Your task to perform on an android device: turn off improve location accuracy Image 0: 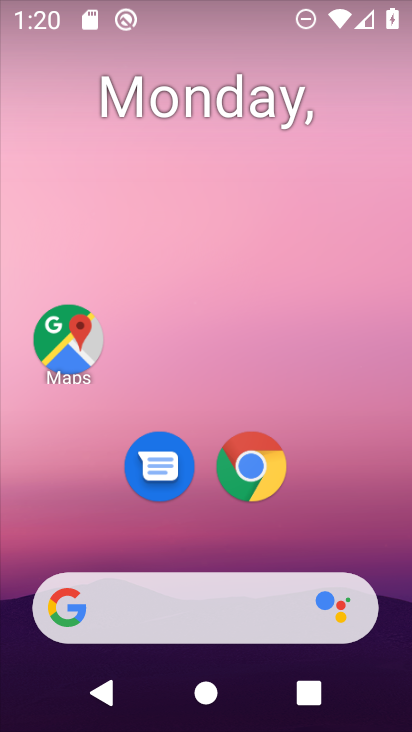
Step 0: drag from (206, 552) to (246, 30)
Your task to perform on an android device: turn off improve location accuracy Image 1: 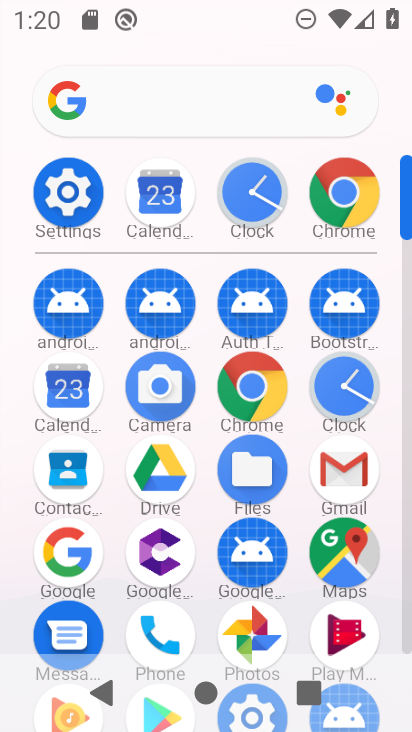
Step 1: click (69, 214)
Your task to perform on an android device: turn off improve location accuracy Image 2: 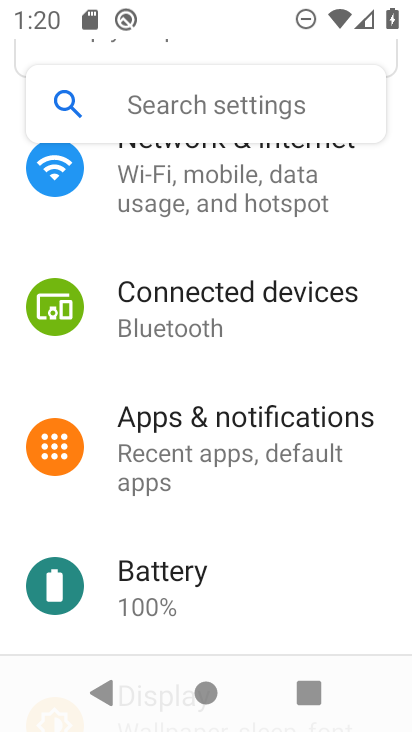
Step 2: drag from (243, 548) to (271, 209)
Your task to perform on an android device: turn off improve location accuracy Image 3: 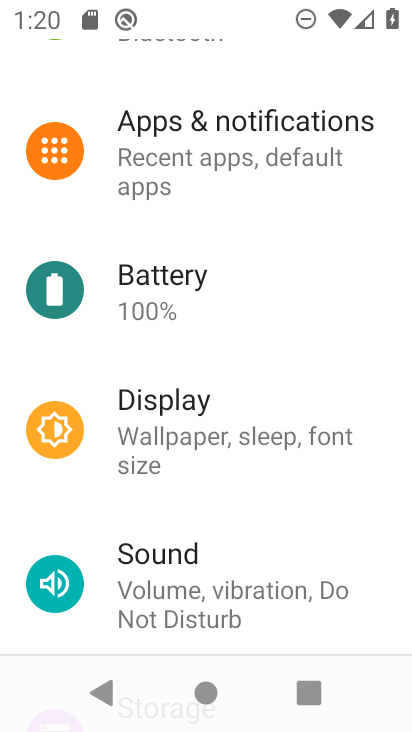
Step 3: drag from (233, 547) to (314, 2)
Your task to perform on an android device: turn off improve location accuracy Image 4: 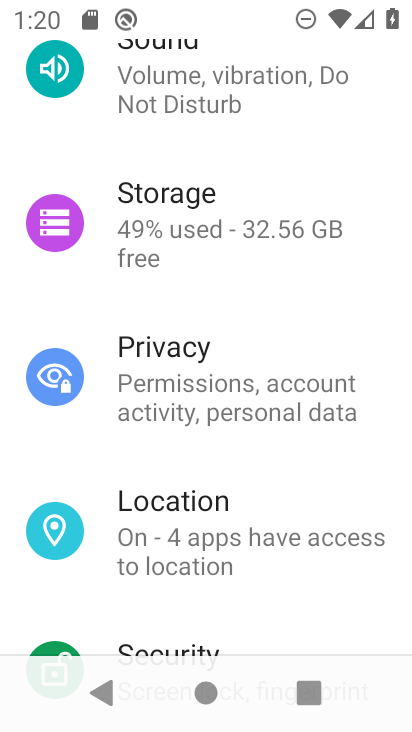
Step 4: click (206, 517)
Your task to perform on an android device: turn off improve location accuracy Image 5: 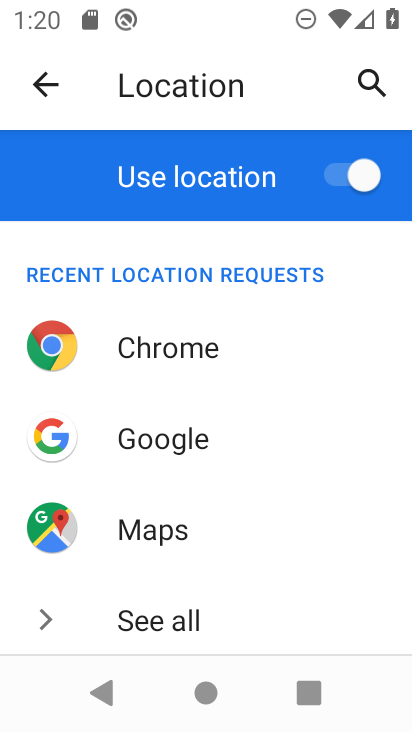
Step 5: drag from (245, 548) to (257, 225)
Your task to perform on an android device: turn off improve location accuracy Image 6: 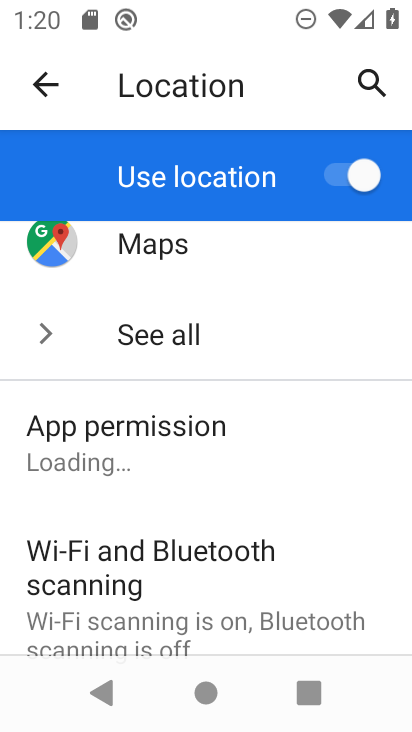
Step 6: drag from (141, 591) to (178, 307)
Your task to perform on an android device: turn off improve location accuracy Image 7: 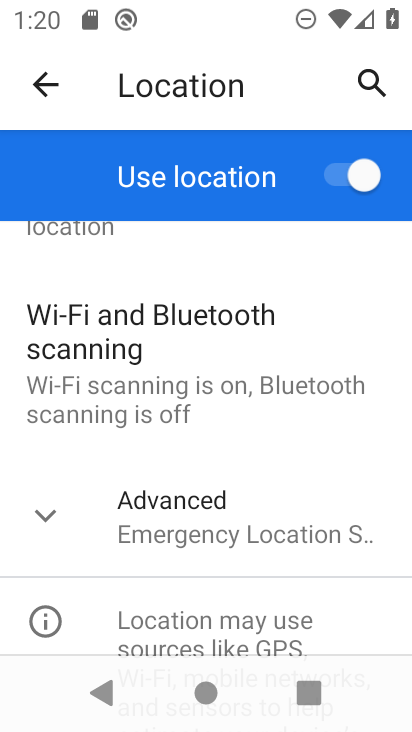
Step 7: click (179, 514)
Your task to perform on an android device: turn off improve location accuracy Image 8: 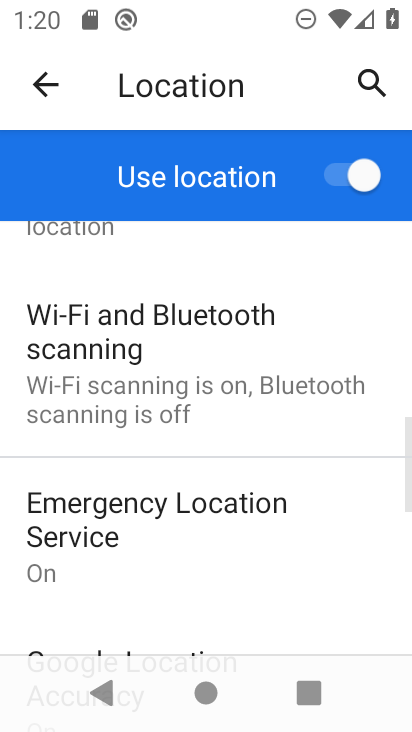
Step 8: drag from (188, 544) to (230, 222)
Your task to perform on an android device: turn off improve location accuracy Image 9: 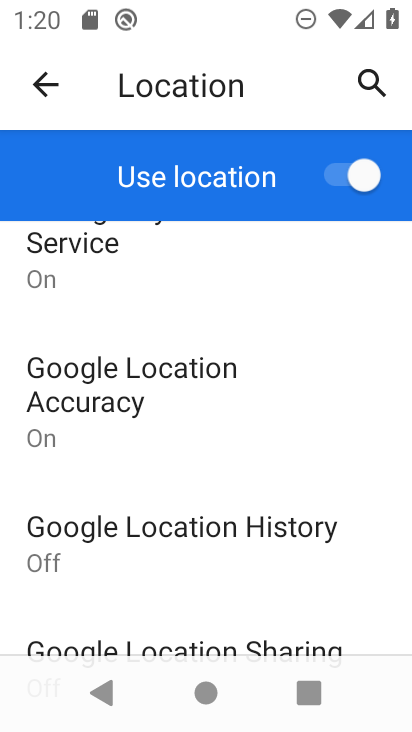
Step 9: click (159, 401)
Your task to perform on an android device: turn off improve location accuracy Image 10: 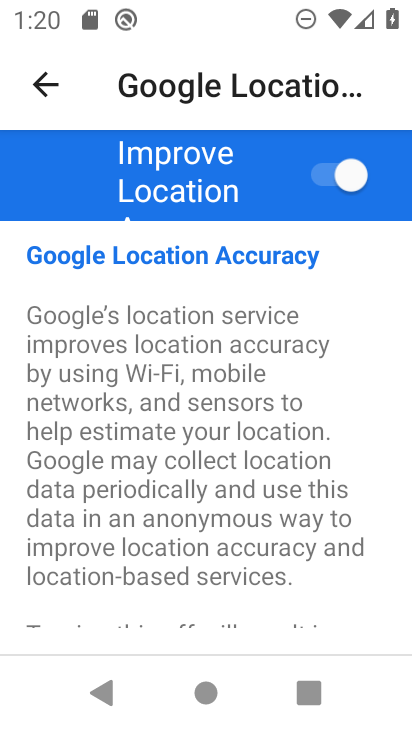
Step 10: click (322, 177)
Your task to perform on an android device: turn off improve location accuracy Image 11: 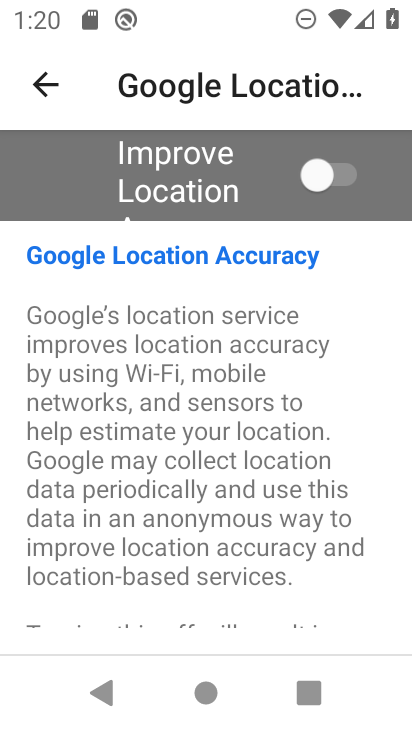
Step 11: task complete